Your task to perform on an android device: toggle pop-ups in chrome Image 0: 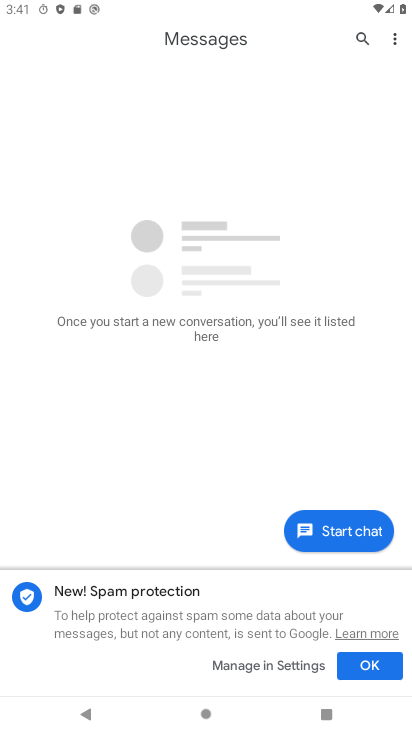
Step 0: press home button
Your task to perform on an android device: toggle pop-ups in chrome Image 1: 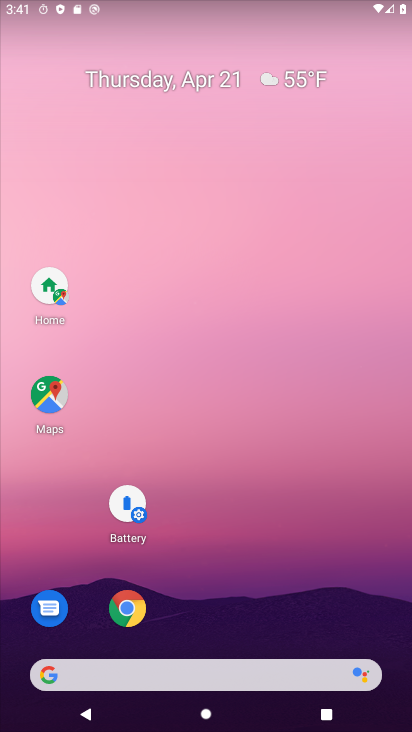
Step 1: click (133, 601)
Your task to perform on an android device: toggle pop-ups in chrome Image 2: 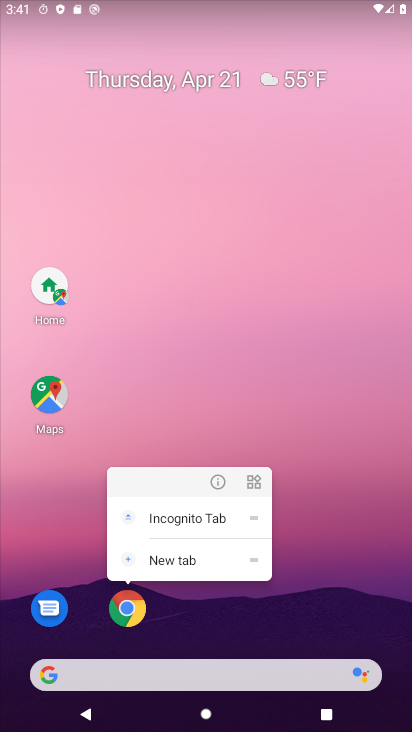
Step 2: click (133, 598)
Your task to perform on an android device: toggle pop-ups in chrome Image 3: 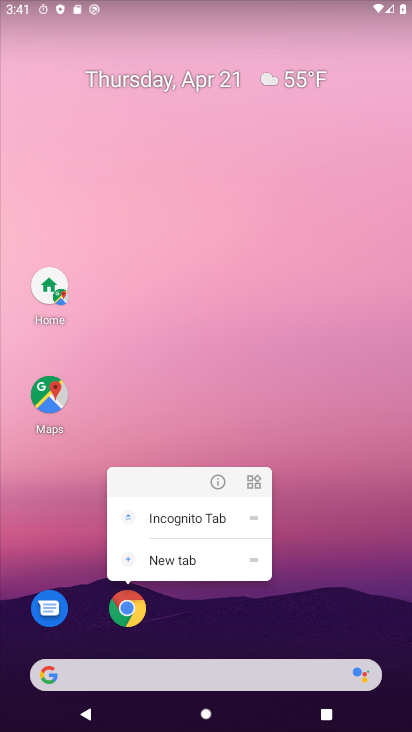
Step 3: click (134, 596)
Your task to perform on an android device: toggle pop-ups in chrome Image 4: 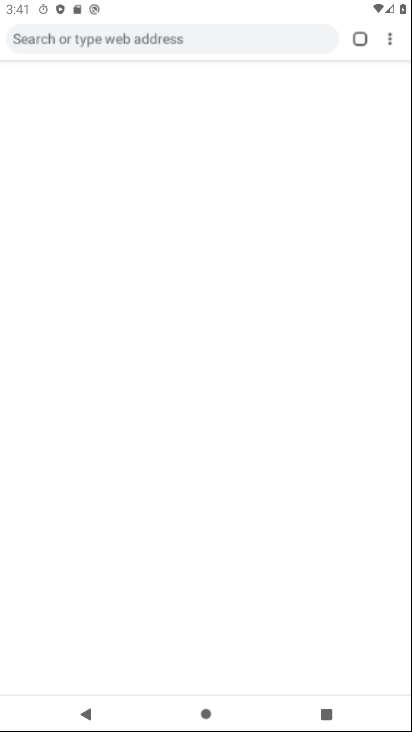
Step 4: click (134, 596)
Your task to perform on an android device: toggle pop-ups in chrome Image 5: 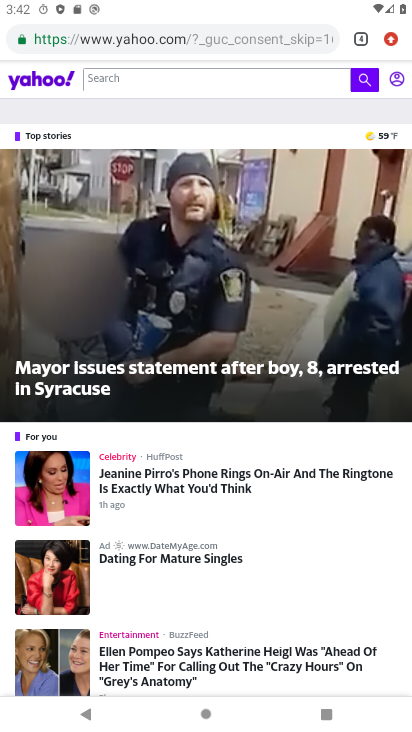
Step 5: click (391, 38)
Your task to perform on an android device: toggle pop-ups in chrome Image 6: 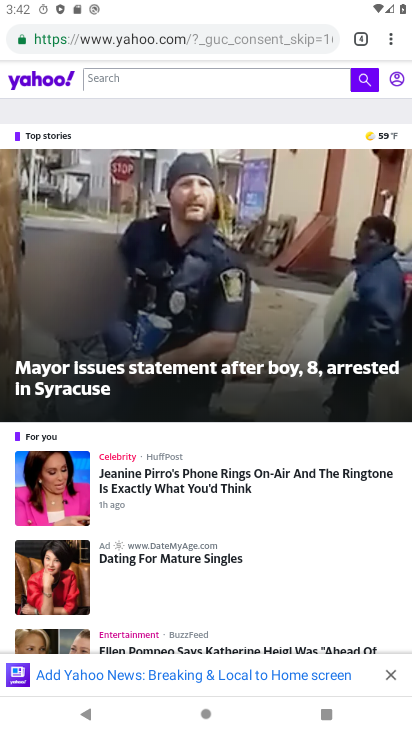
Step 6: drag from (396, 42) to (266, 503)
Your task to perform on an android device: toggle pop-ups in chrome Image 7: 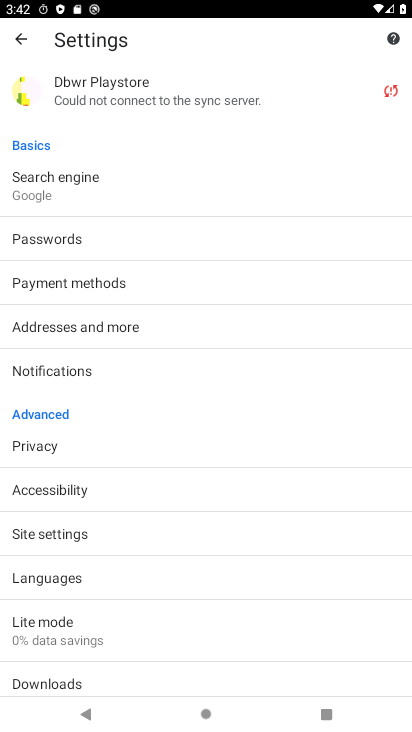
Step 7: click (47, 525)
Your task to perform on an android device: toggle pop-ups in chrome Image 8: 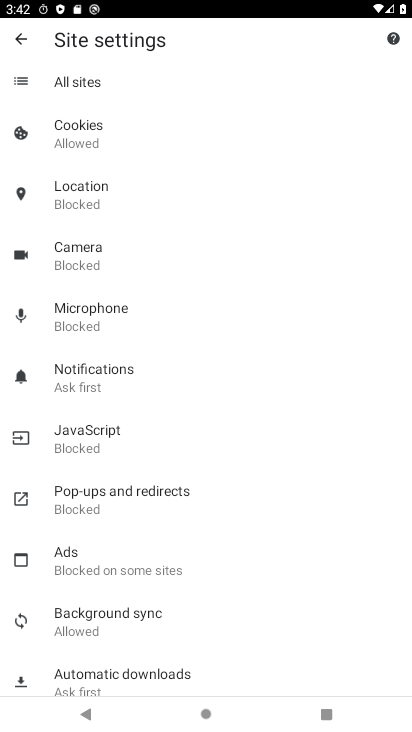
Step 8: click (87, 497)
Your task to perform on an android device: toggle pop-ups in chrome Image 9: 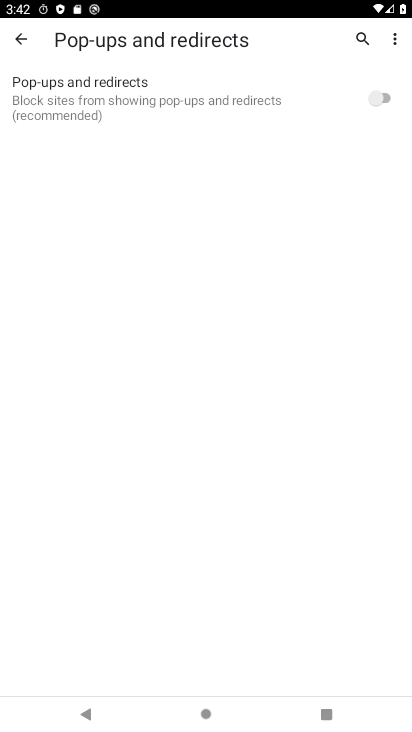
Step 9: click (380, 98)
Your task to perform on an android device: toggle pop-ups in chrome Image 10: 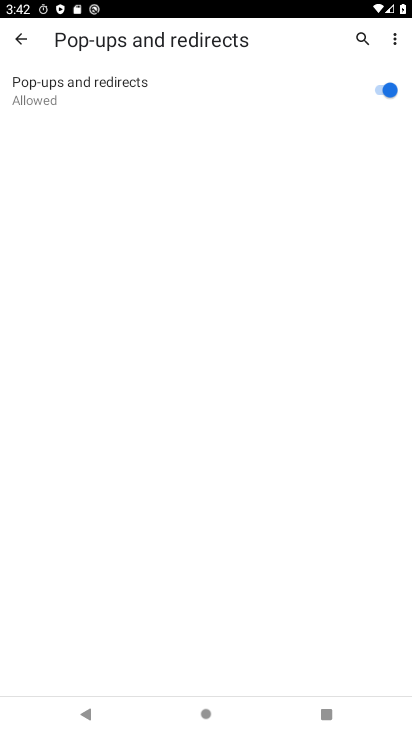
Step 10: task complete